Your task to perform on an android device: Open internet settings Image 0: 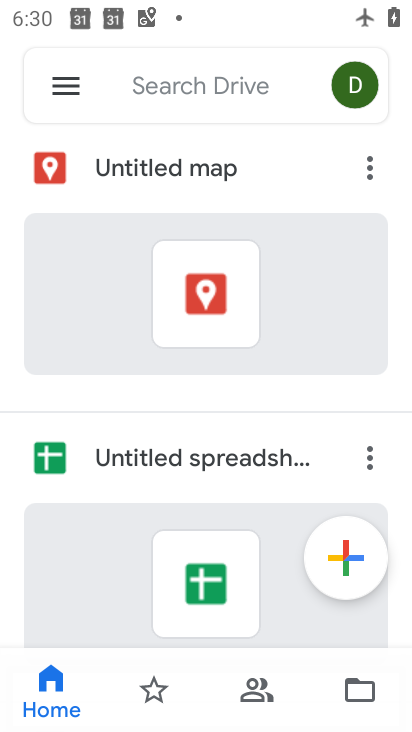
Step 0: press home button
Your task to perform on an android device: Open internet settings Image 1: 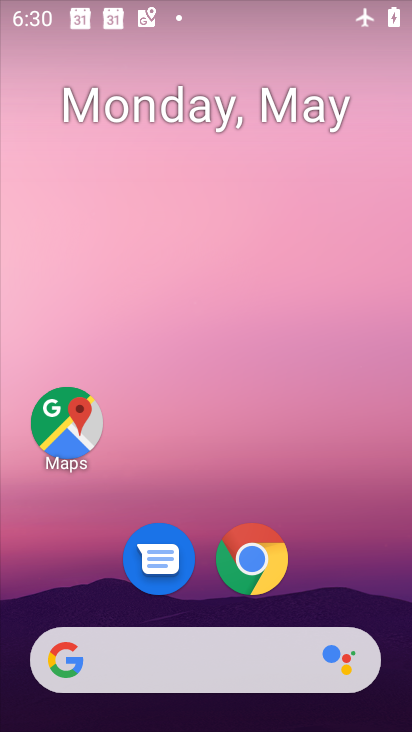
Step 1: drag from (391, 660) to (254, 110)
Your task to perform on an android device: Open internet settings Image 2: 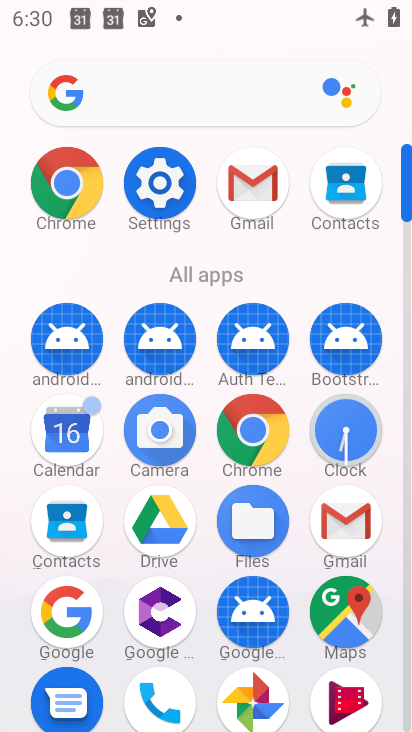
Step 2: click (160, 179)
Your task to perform on an android device: Open internet settings Image 3: 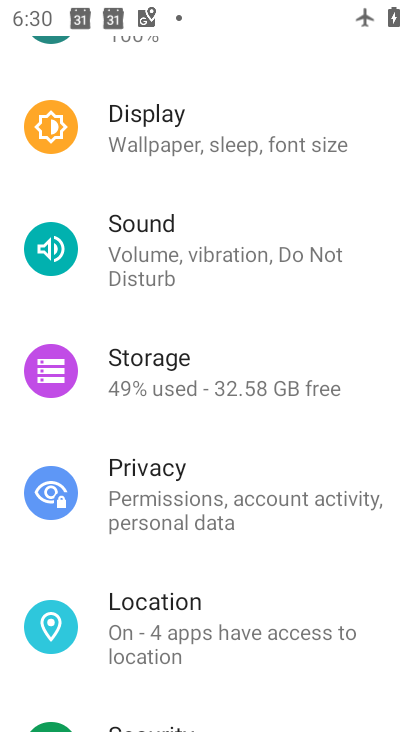
Step 3: drag from (206, 193) to (255, 587)
Your task to perform on an android device: Open internet settings Image 4: 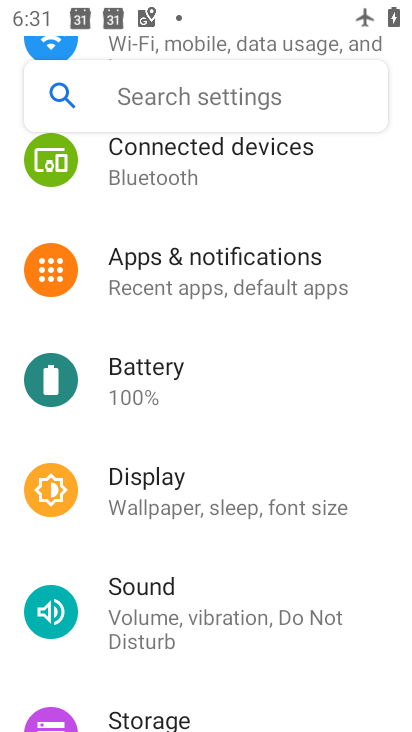
Step 4: drag from (198, 148) to (240, 606)
Your task to perform on an android device: Open internet settings Image 5: 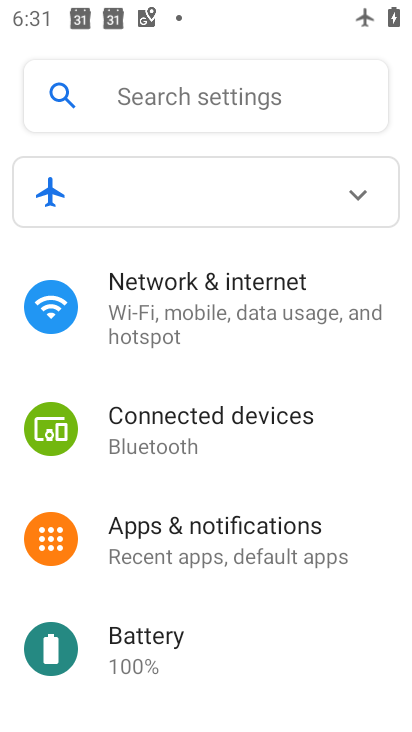
Step 5: click (211, 302)
Your task to perform on an android device: Open internet settings Image 6: 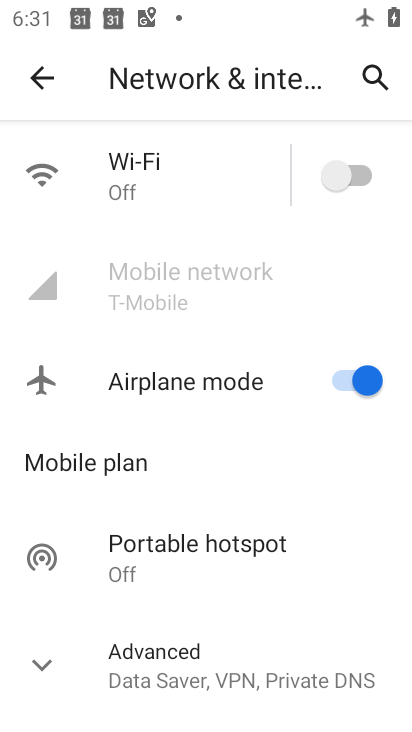
Step 6: task complete